Your task to perform on an android device: Open Android settings Image 0: 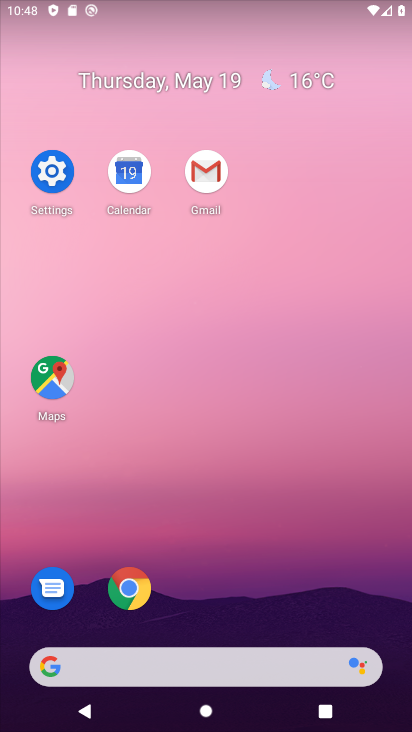
Step 0: click (51, 170)
Your task to perform on an android device: Open Android settings Image 1: 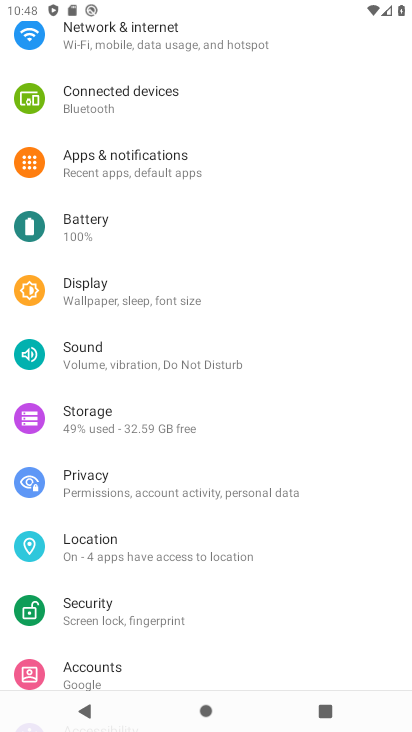
Step 1: task complete